Your task to perform on an android device: turn off javascript in the chrome app Image 0: 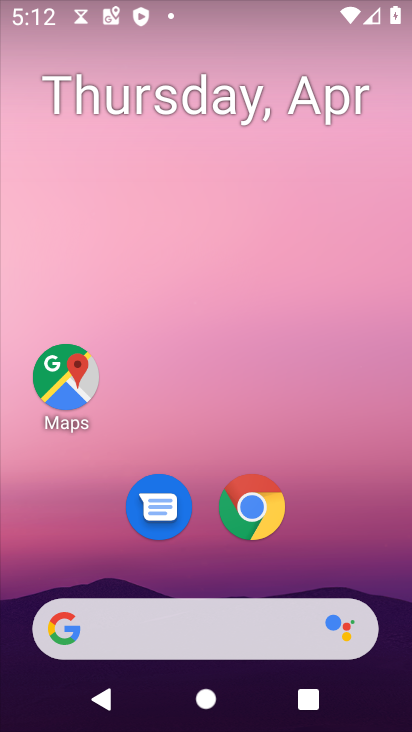
Step 0: click (259, 538)
Your task to perform on an android device: turn off javascript in the chrome app Image 1: 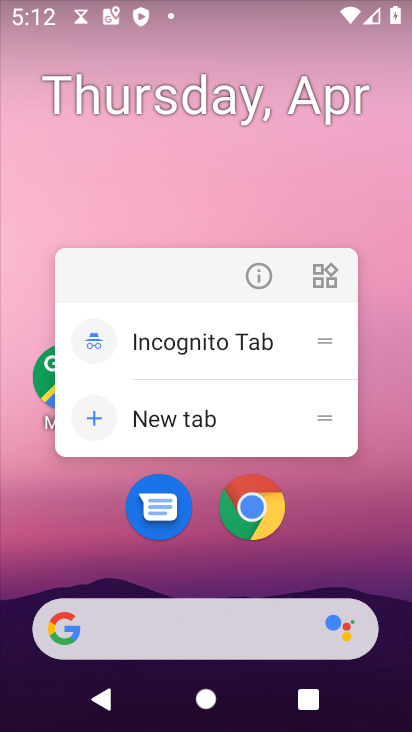
Step 1: click (258, 537)
Your task to perform on an android device: turn off javascript in the chrome app Image 2: 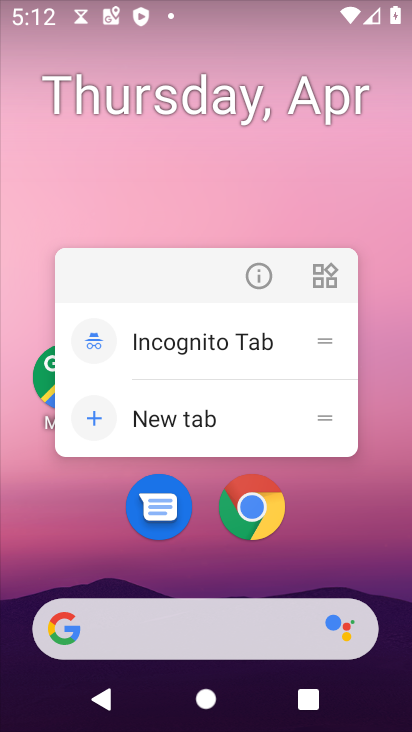
Step 2: click (257, 527)
Your task to perform on an android device: turn off javascript in the chrome app Image 3: 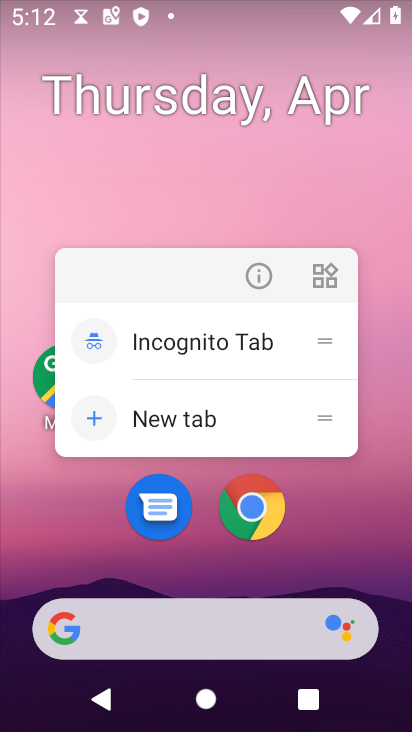
Step 3: click (260, 523)
Your task to perform on an android device: turn off javascript in the chrome app Image 4: 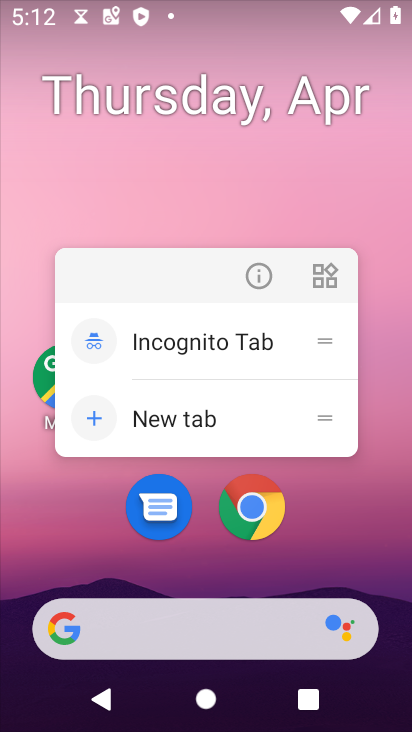
Step 4: click (308, 530)
Your task to perform on an android device: turn off javascript in the chrome app Image 5: 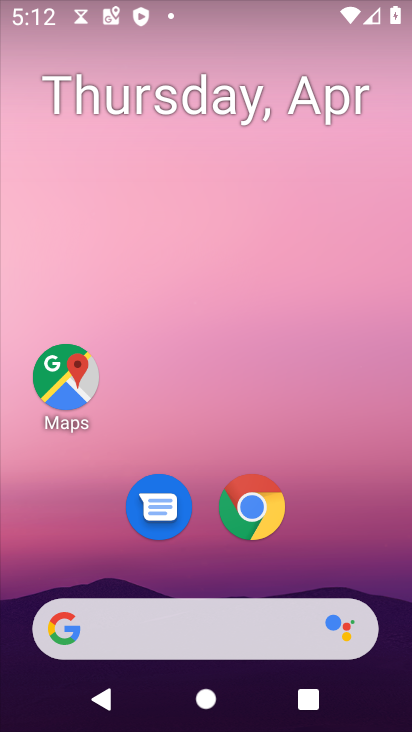
Step 5: click (265, 545)
Your task to perform on an android device: turn off javascript in the chrome app Image 6: 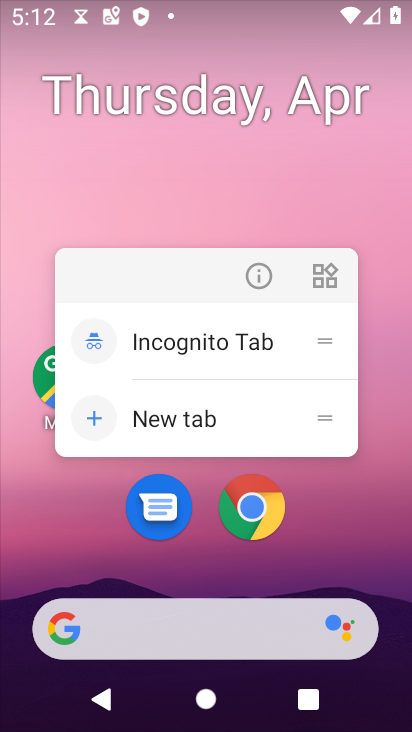
Step 6: click (249, 543)
Your task to perform on an android device: turn off javascript in the chrome app Image 7: 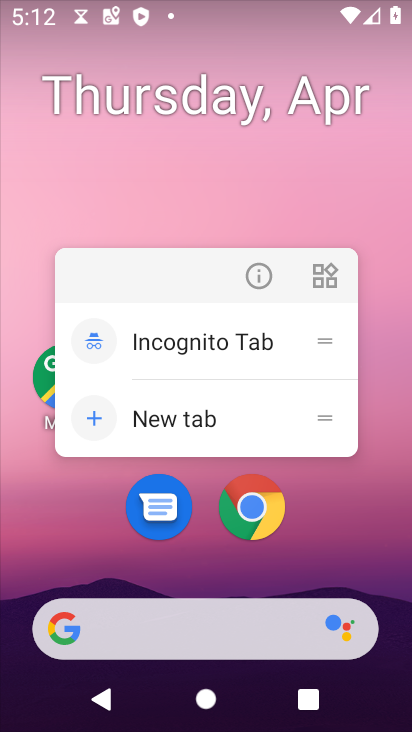
Step 7: click (245, 527)
Your task to perform on an android device: turn off javascript in the chrome app Image 8: 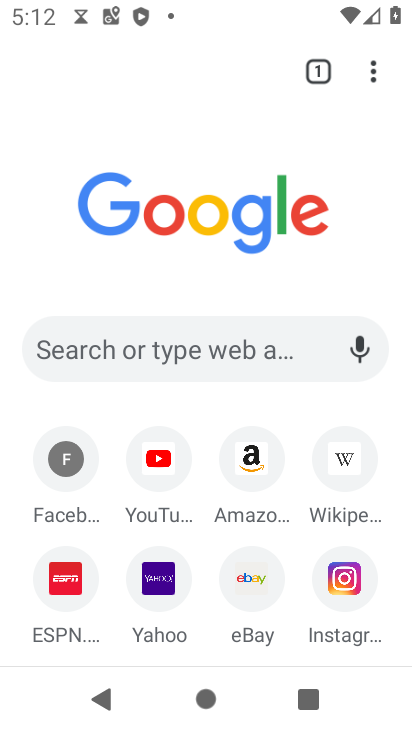
Step 8: click (371, 77)
Your task to perform on an android device: turn off javascript in the chrome app Image 9: 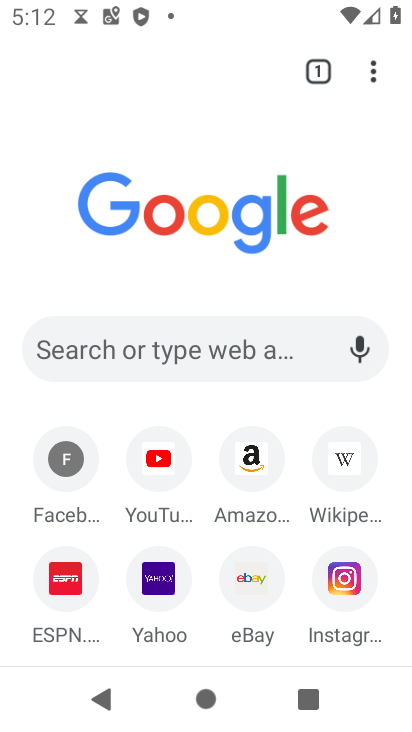
Step 9: click (370, 63)
Your task to perform on an android device: turn off javascript in the chrome app Image 10: 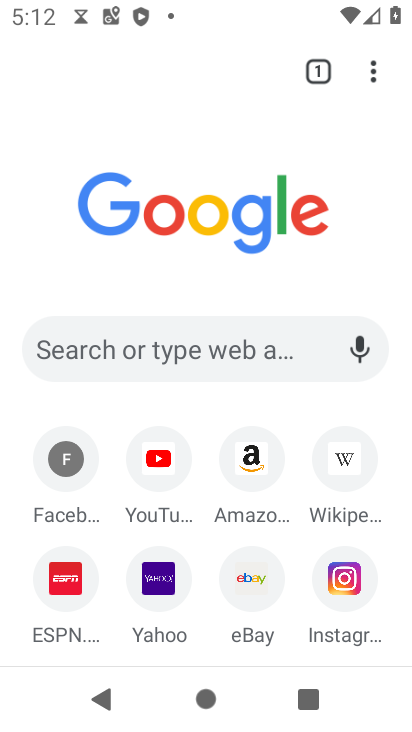
Step 10: click (378, 77)
Your task to perform on an android device: turn off javascript in the chrome app Image 11: 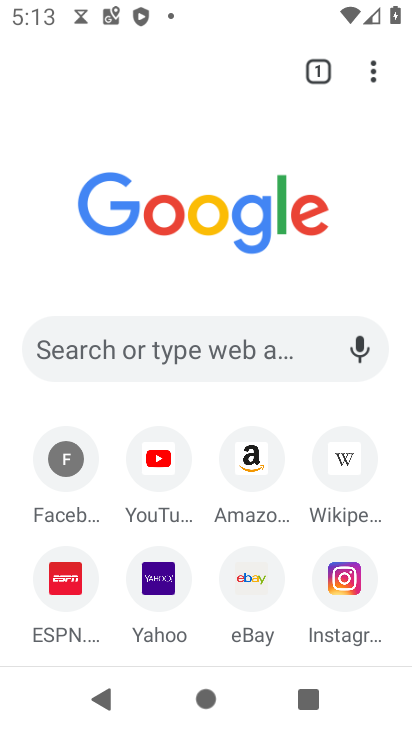
Step 11: click (374, 72)
Your task to perform on an android device: turn off javascript in the chrome app Image 12: 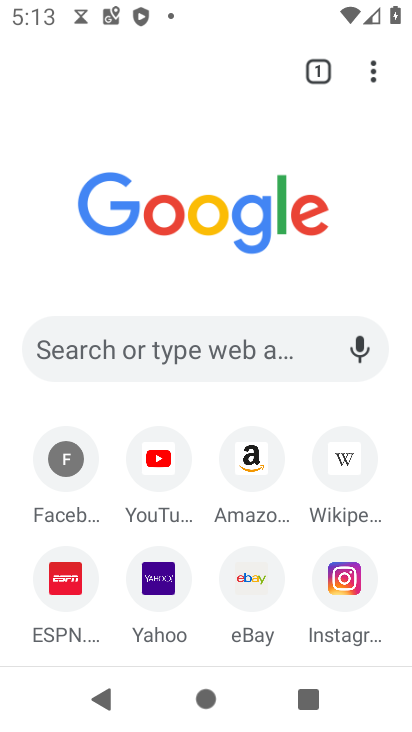
Step 12: click (374, 72)
Your task to perform on an android device: turn off javascript in the chrome app Image 13: 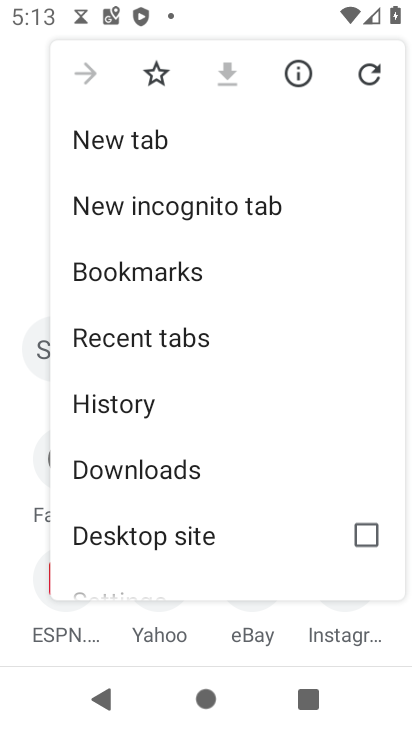
Step 13: drag from (169, 461) to (209, 293)
Your task to perform on an android device: turn off javascript in the chrome app Image 14: 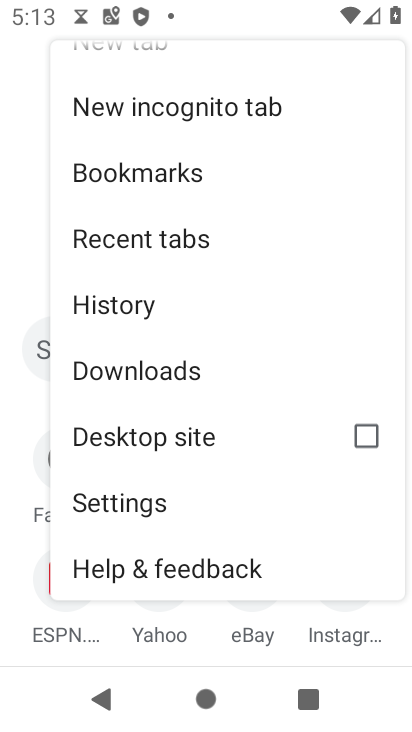
Step 14: click (104, 510)
Your task to perform on an android device: turn off javascript in the chrome app Image 15: 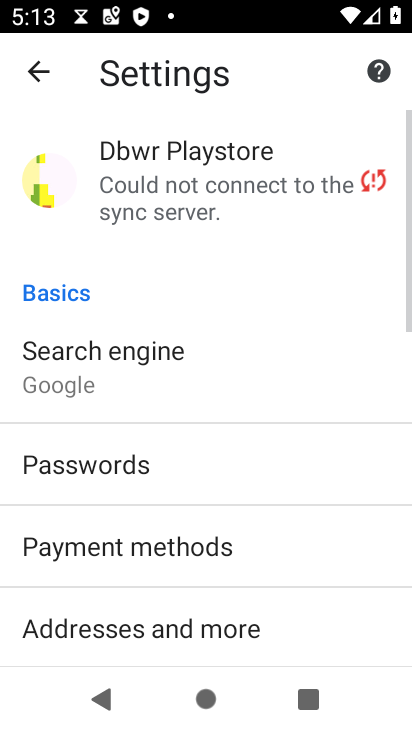
Step 15: drag from (114, 565) to (205, 218)
Your task to perform on an android device: turn off javascript in the chrome app Image 16: 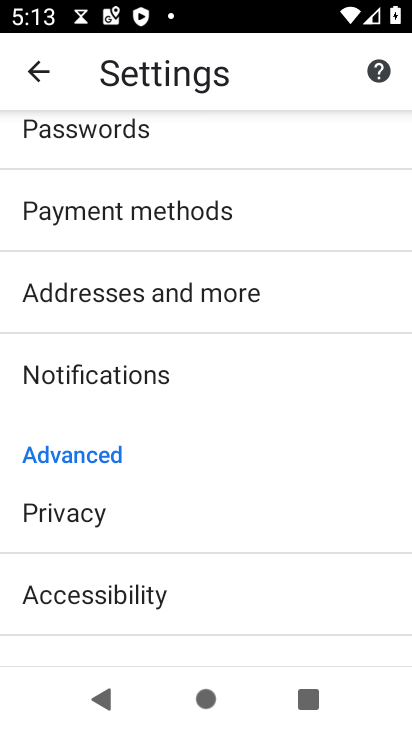
Step 16: drag from (162, 566) to (231, 200)
Your task to perform on an android device: turn off javascript in the chrome app Image 17: 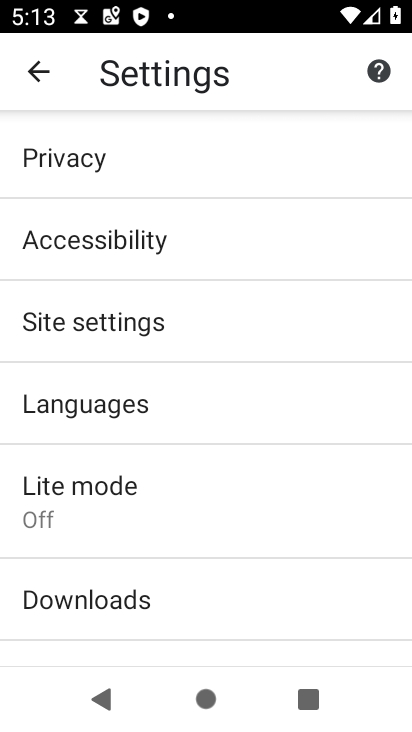
Step 17: click (105, 328)
Your task to perform on an android device: turn off javascript in the chrome app Image 18: 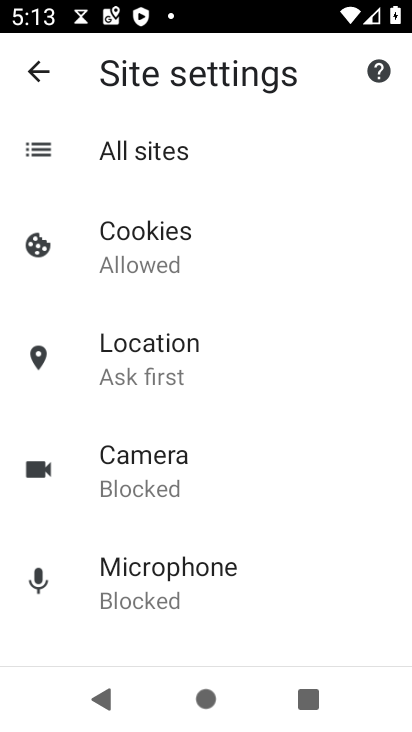
Step 18: drag from (212, 568) to (271, 293)
Your task to perform on an android device: turn off javascript in the chrome app Image 19: 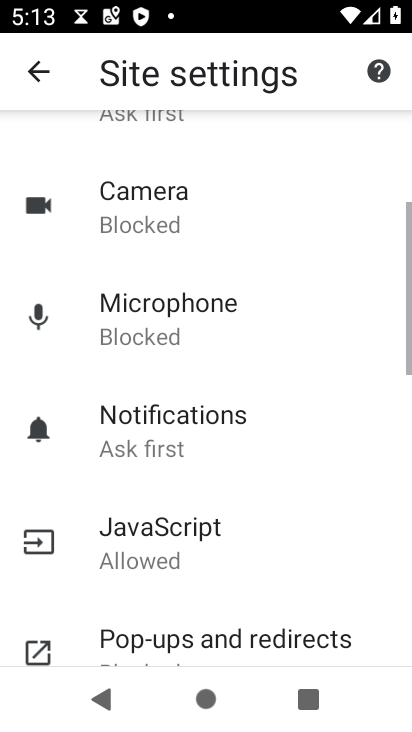
Step 19: click (172, 537)
Your task to perform on an android device: turn off javascript in the chrome app Image 20: 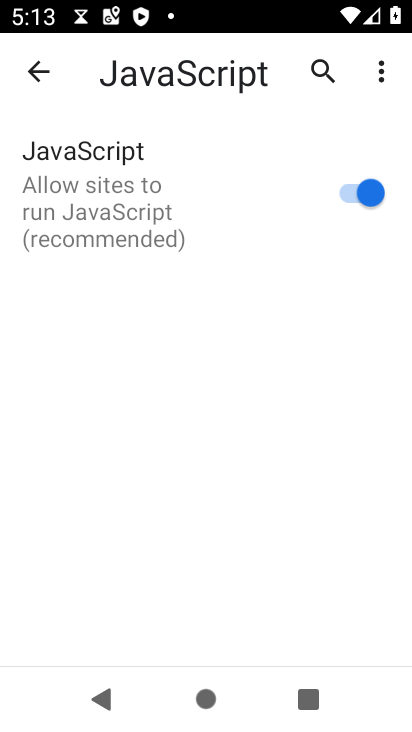
Step 20: click (354, 199)
Your task to perform on an android device: turn off javascript in the chrome app Image 21: 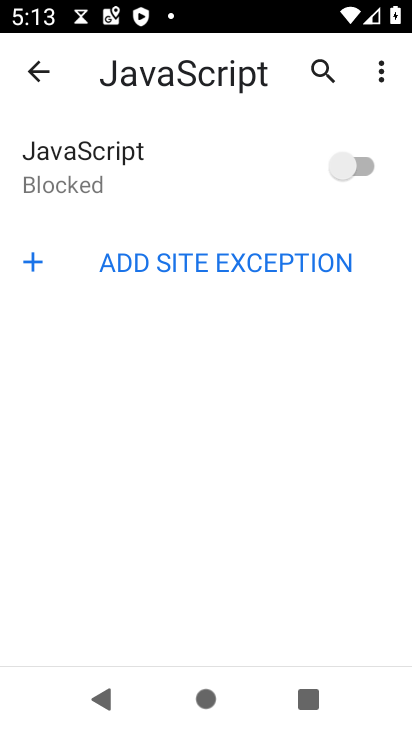
Step 21: task complete